Your task to perform on an android device: Open the map Image 0: 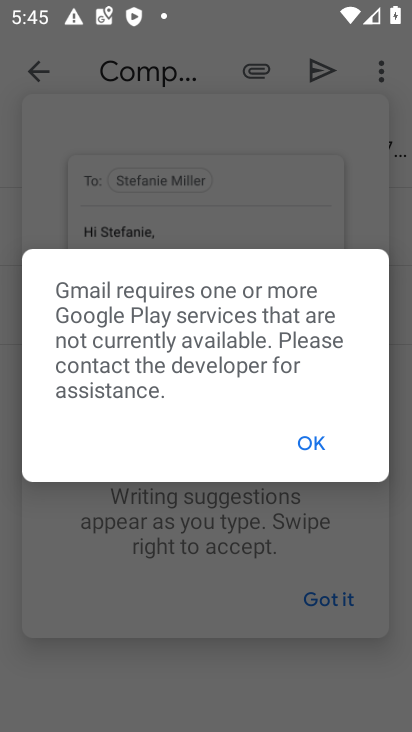
Step 0: press home button
Your task to perform on an android device: Open the map Image 1: 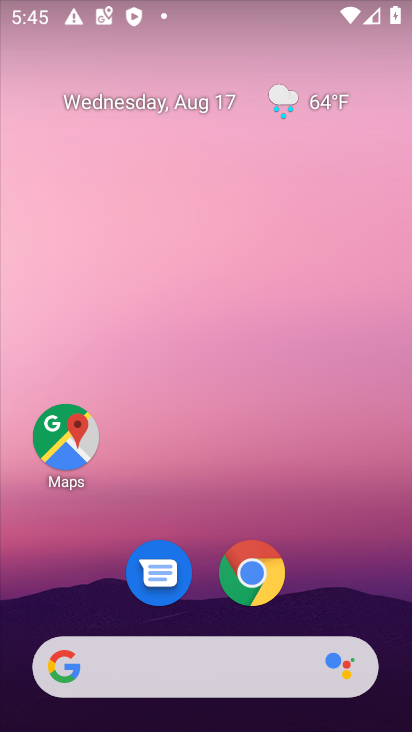
Step 1: drag from (195, 56) to (241, 43)
Your task to perform on an android device: Open the map Image 2: 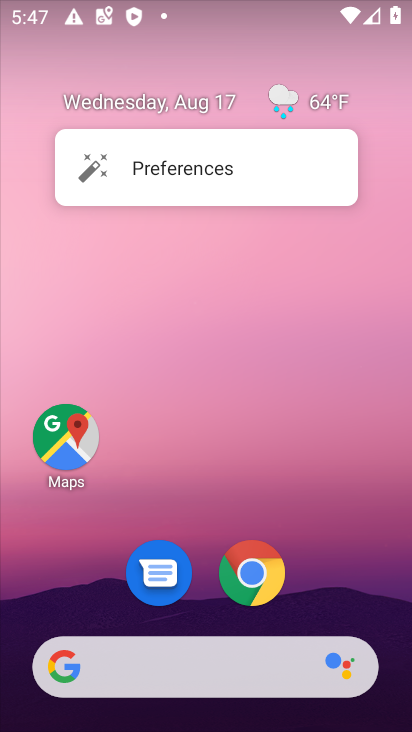
Step 2: drag from (269, 596) to (213, 114)
Your task to perform on an android device: Open the map Image 3: 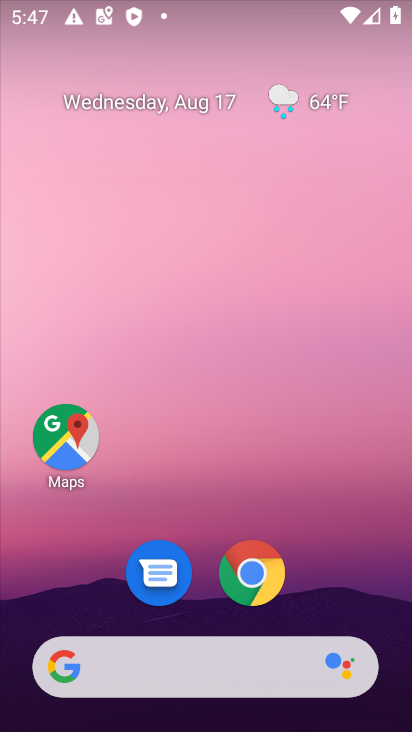
Step 3: drag from (342, 603) to (286, 194)
Your task to perform on an android device: Open the map Image 4: 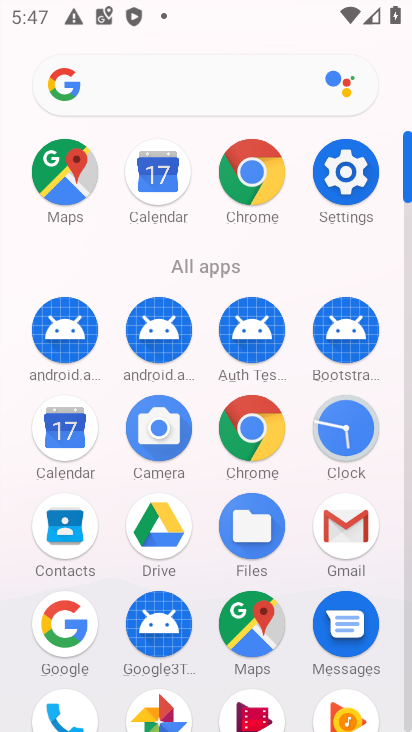
Step 4: click (264, 616)
Your task to perform on an android device: Open the map Image 5: 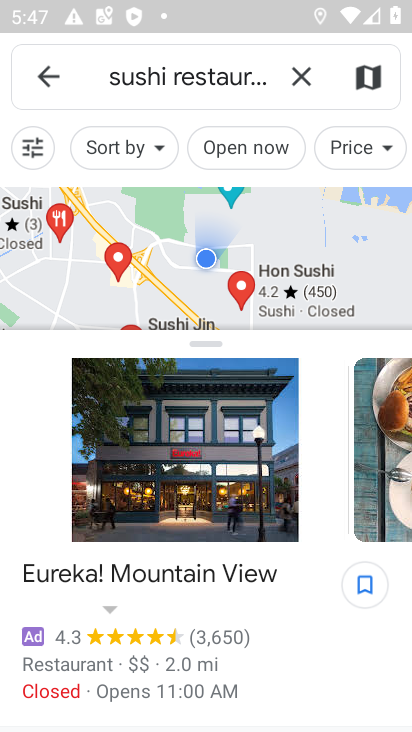
Step 5: task complete